Your task to perform on an android device: Open Android settings Image 0: 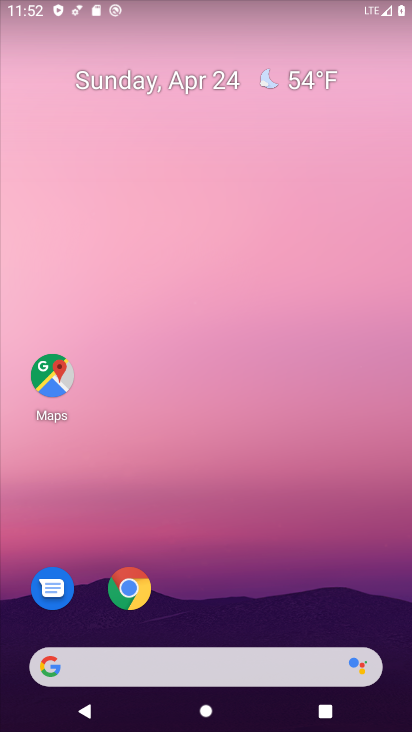
Step 0: drag from (216, 621) to (177, 3)
Your task to perform on an android device: Open Android settings Image 1: 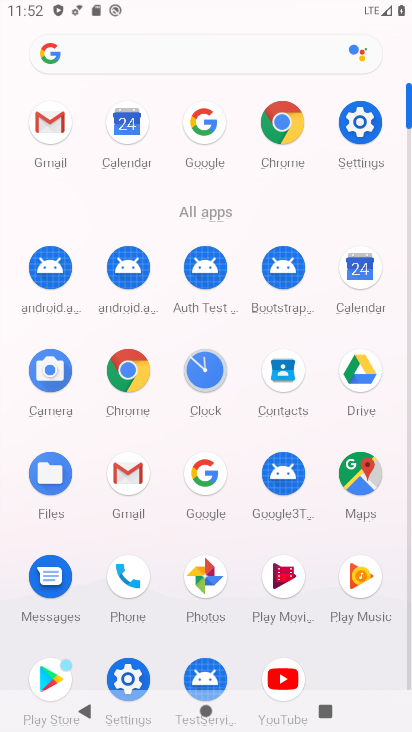
Step 1: click (127, 668)
Your task to perform on an android device: Open Android settings Image 2: 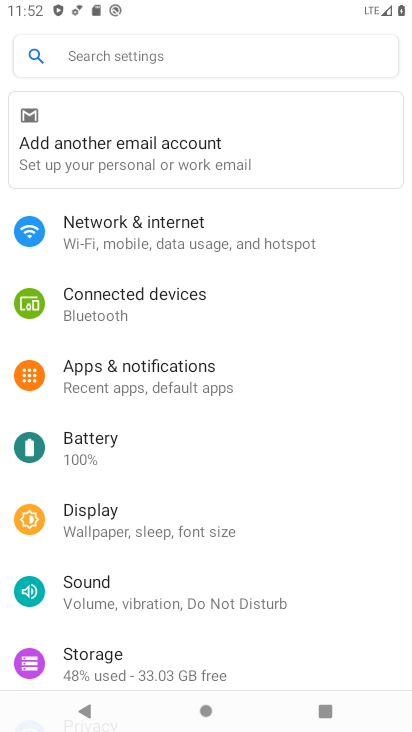
Step 2: task complete